Your task to perform on an android device: Show me recent news Image 0: 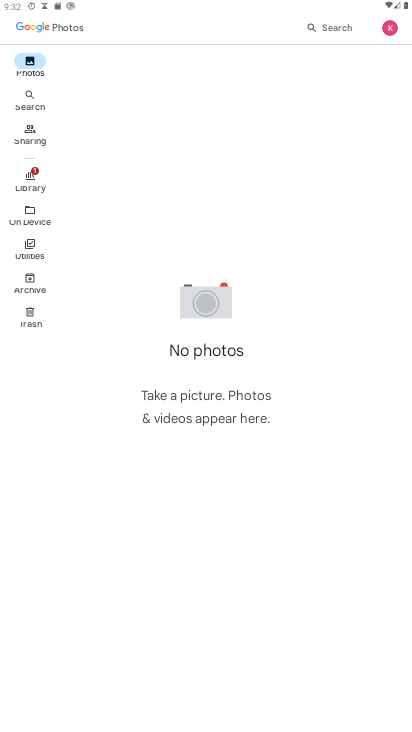
Step 0: press home button
Your task to perform on an android device: Show me recent news Image 1: 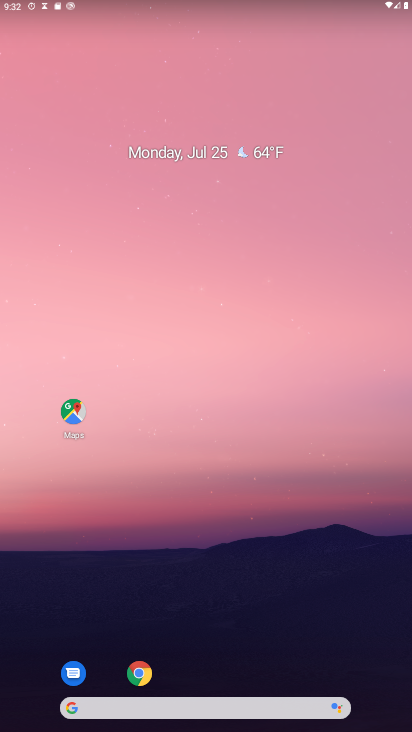
Step 1: task complete